Your task to perform on an android device: Open Wikipedia Image 0: 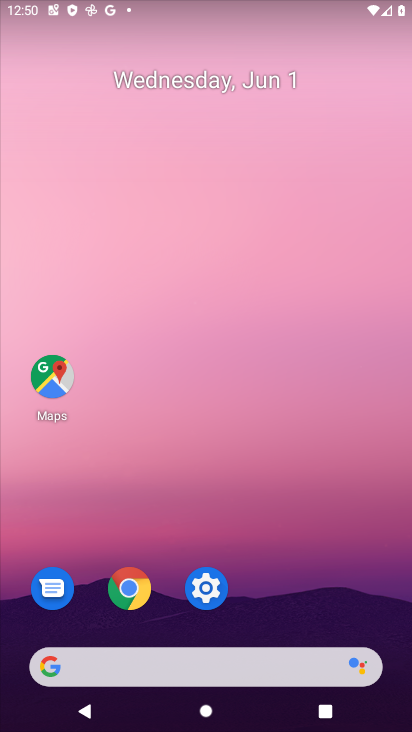
Step 0: drag from (244, 679) to (289, 362)
Your task to perform on an android device: Open Wikipedia Image 1: 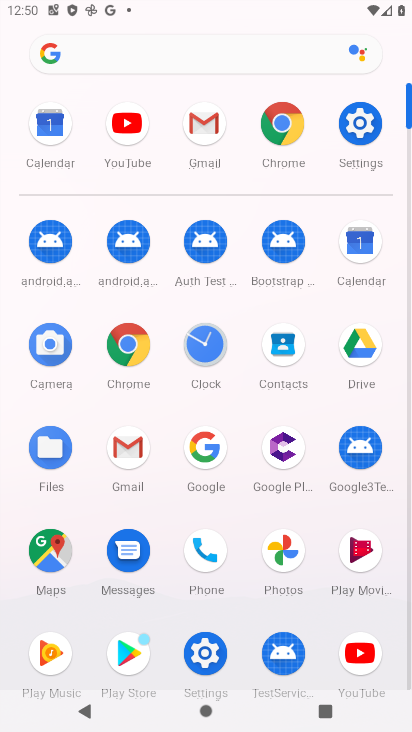
Step 1: click (286, 127)
Your task to perform on an android device: Open Wikipedia Image 2: 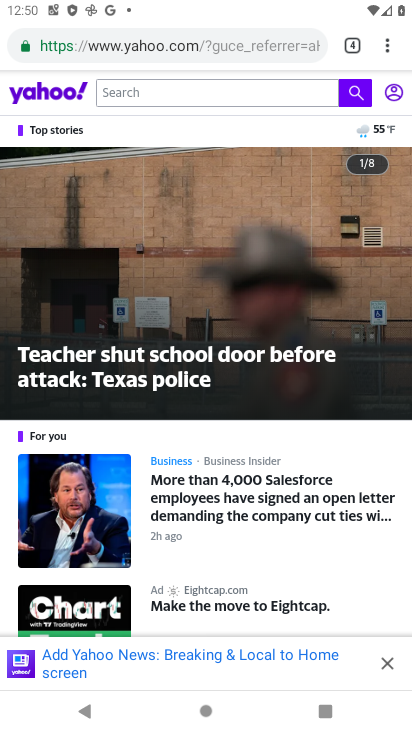
Step 2: click (348, 45)
Your task to perform on an android device: Open Wikipedia Image 3: 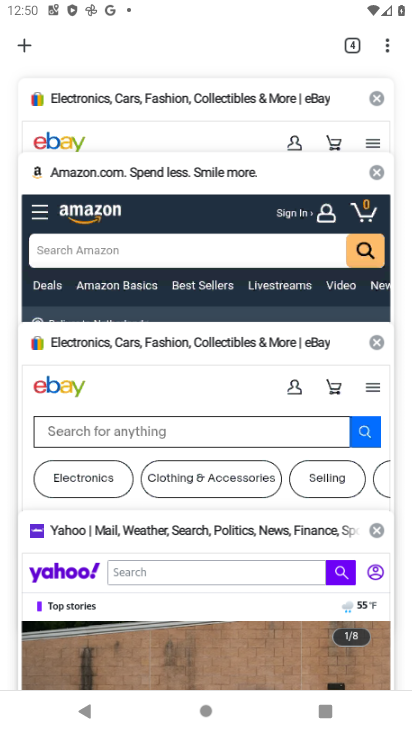
Step 3: click (29, 50)
Your task to perform on an android device: Open Wikipedia Image 4: 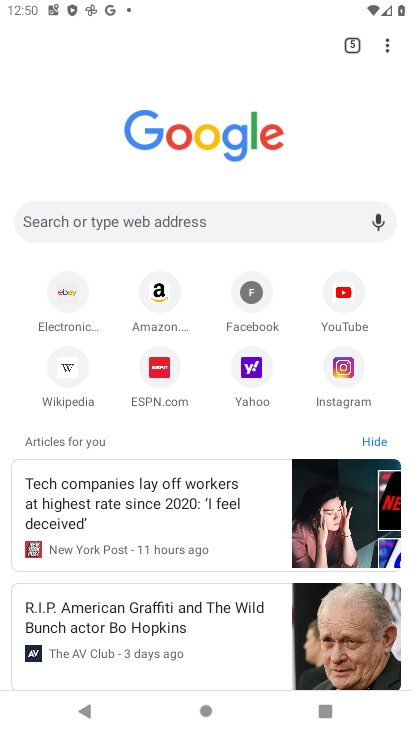
Step 4: click (75, 375)
Your task to perform on an android device: Open Wikipedia Image 5: 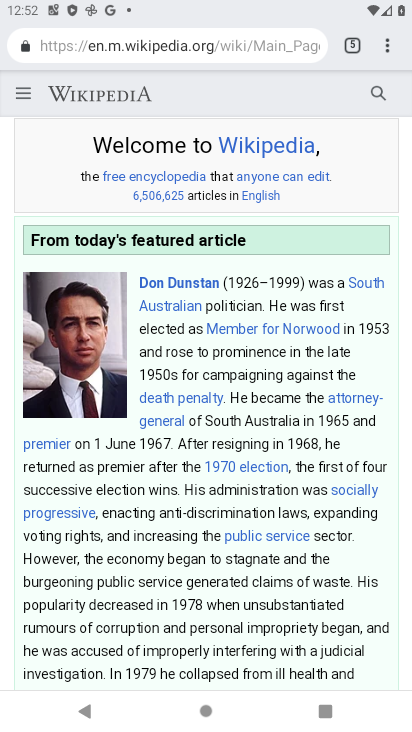
Step 5: task complete